Your task to perform on an android device: turn off improve location accuracy Image 0: 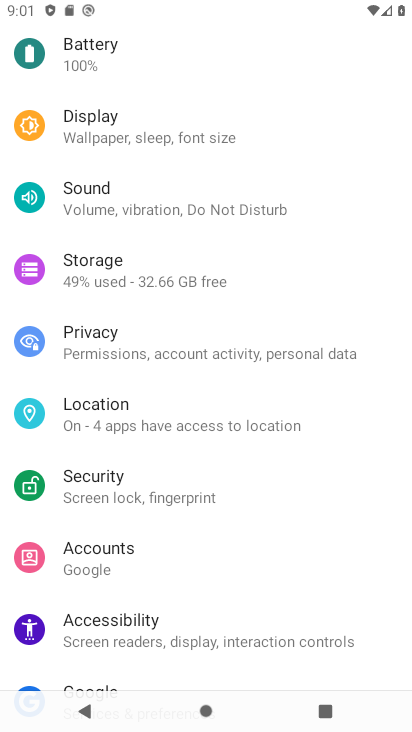
Step 0: press home button
Your task to perform on an android device: turn off improve location accuracy Image 1: 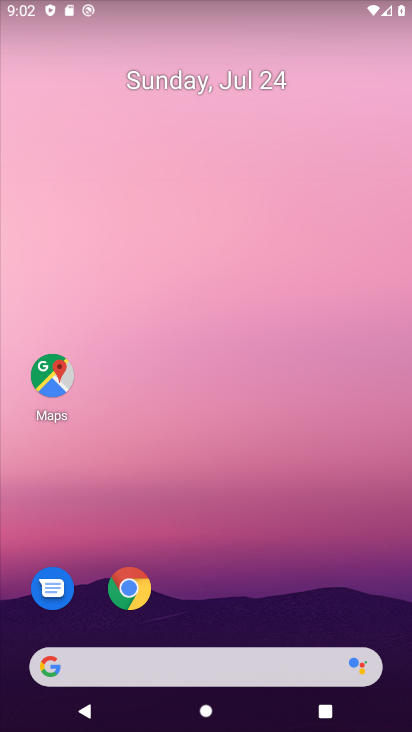
Step 1: drag from (312, 641) to (302, 5)
Your task to perform on an android device: turn off improve location accuracy Image 2: 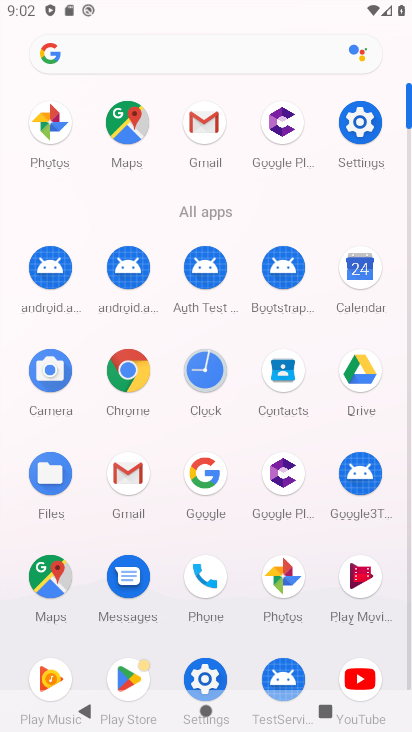
Step 2: click (382, 115)
Your task to perform on an android device: turn off improve location accuracy Image 3: 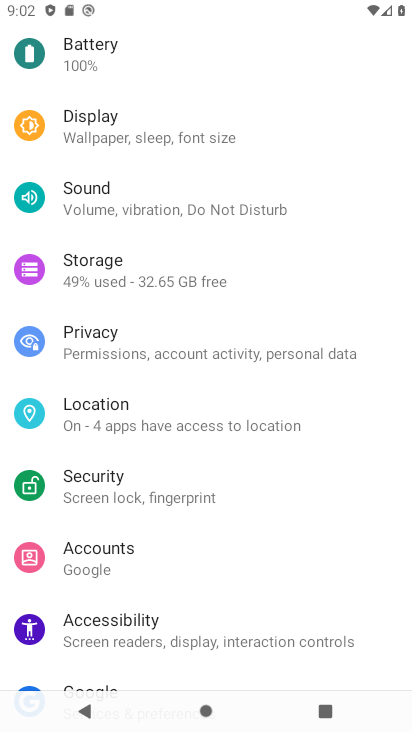
Step 3: click (188, 405)
Your task to perform on an android device: turn off improve location accuracy Image 4: 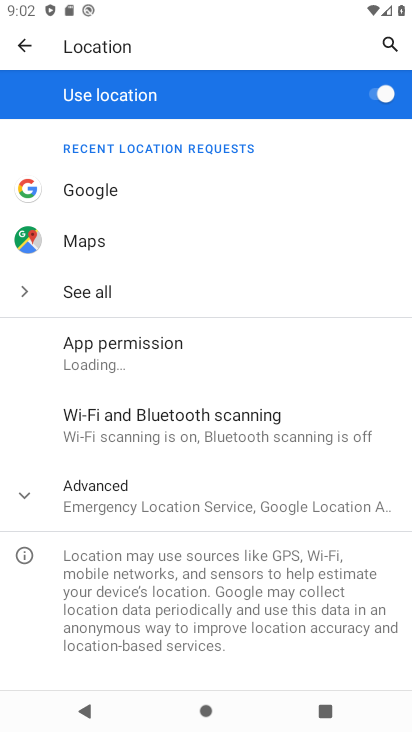
Step 4: click (244, 493)
Your task to perform on an android device: turn off improve location accuracy Image 5: 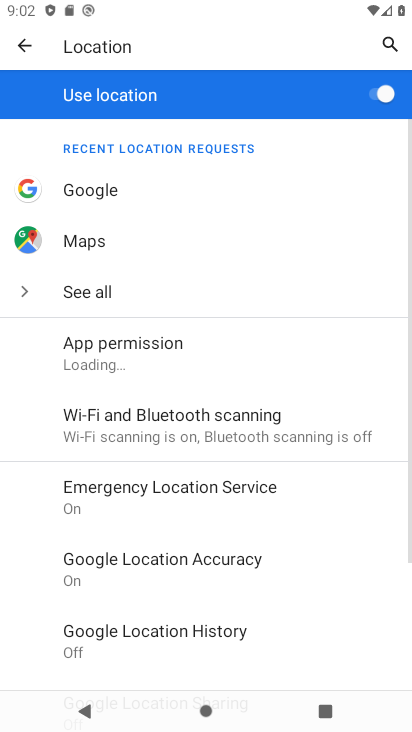
Step 5: click (266, 572)
Your task to perform on an android device: turn off improve location accuracy Image 6: 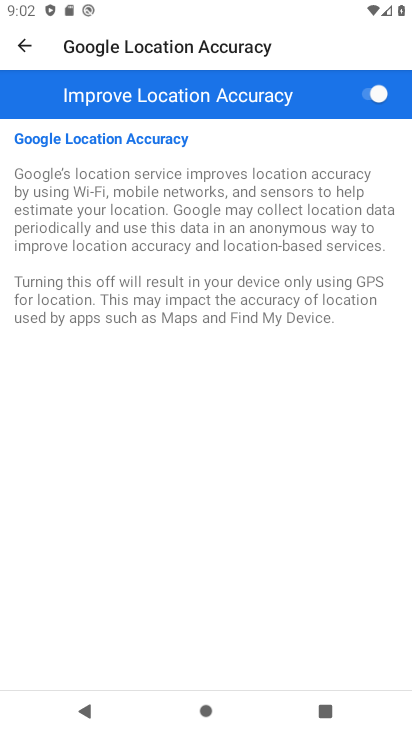
Step 6: click (373, 97)
Your task to perform on an android device: turn off improve location accuracy Image 7: 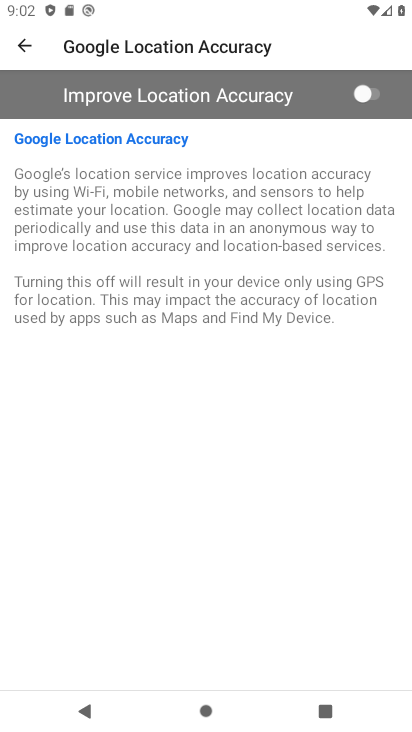
Step 7: task complete